Your task to perform on an android device: Add "lg ultragear" to the cart on bestbuy.com, then select checkout. Image 0: 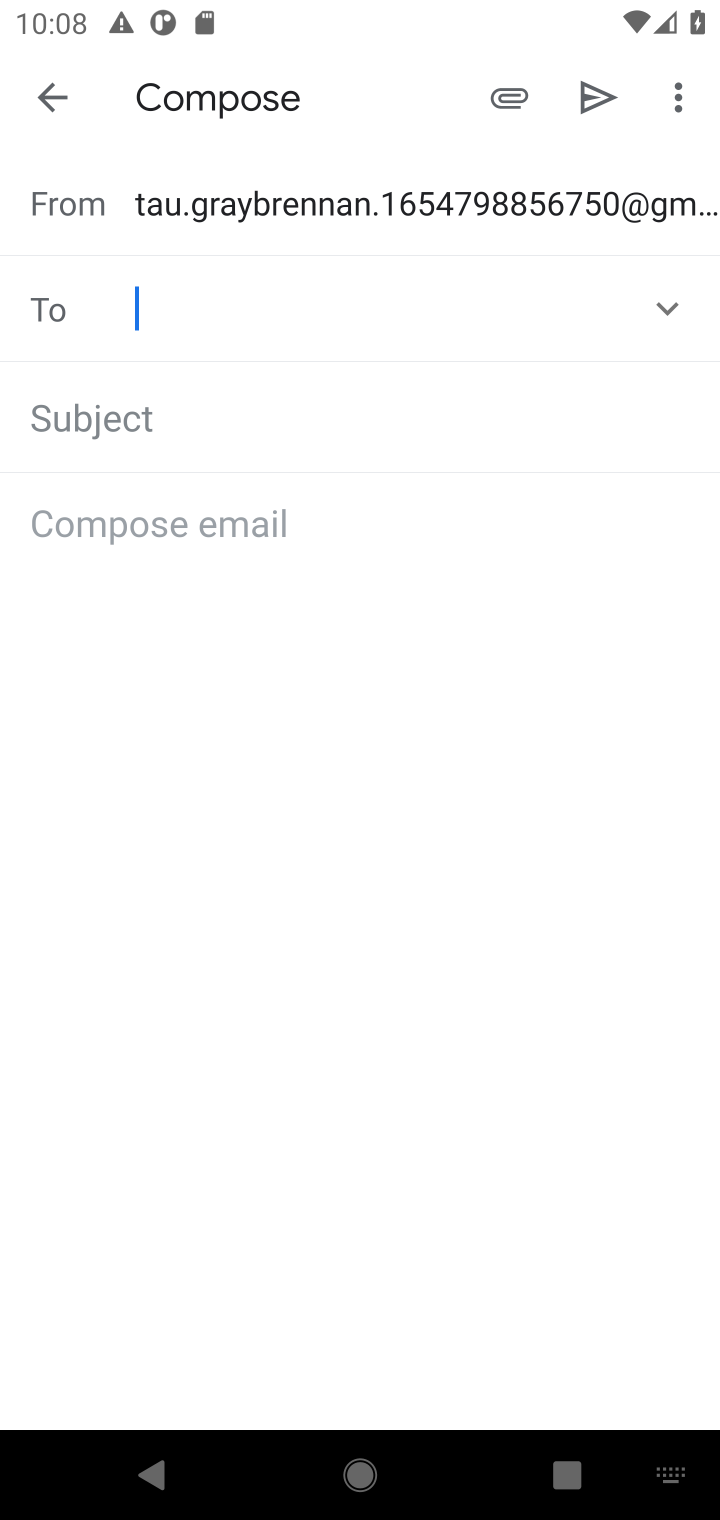
Step 0: press home button
Your task to perform on an android device: Add "lg ultragear" to the cart on bestbuy.com, then select checkout. Image 1: 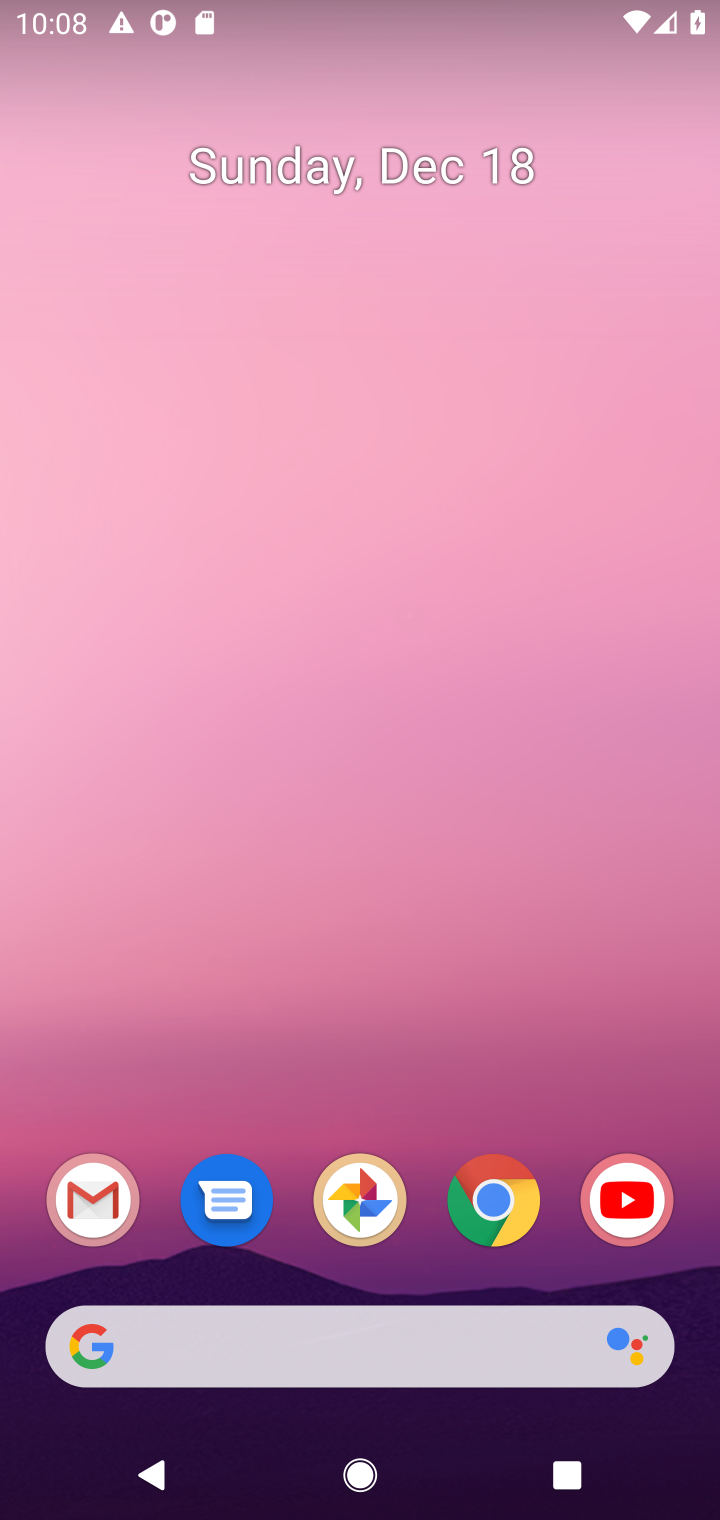
Step 1: click (498, 1205)
Your task to perform on an android device: Add "lg ultragear" to the cart on bestbuy.com, then select checkout. Image 2: 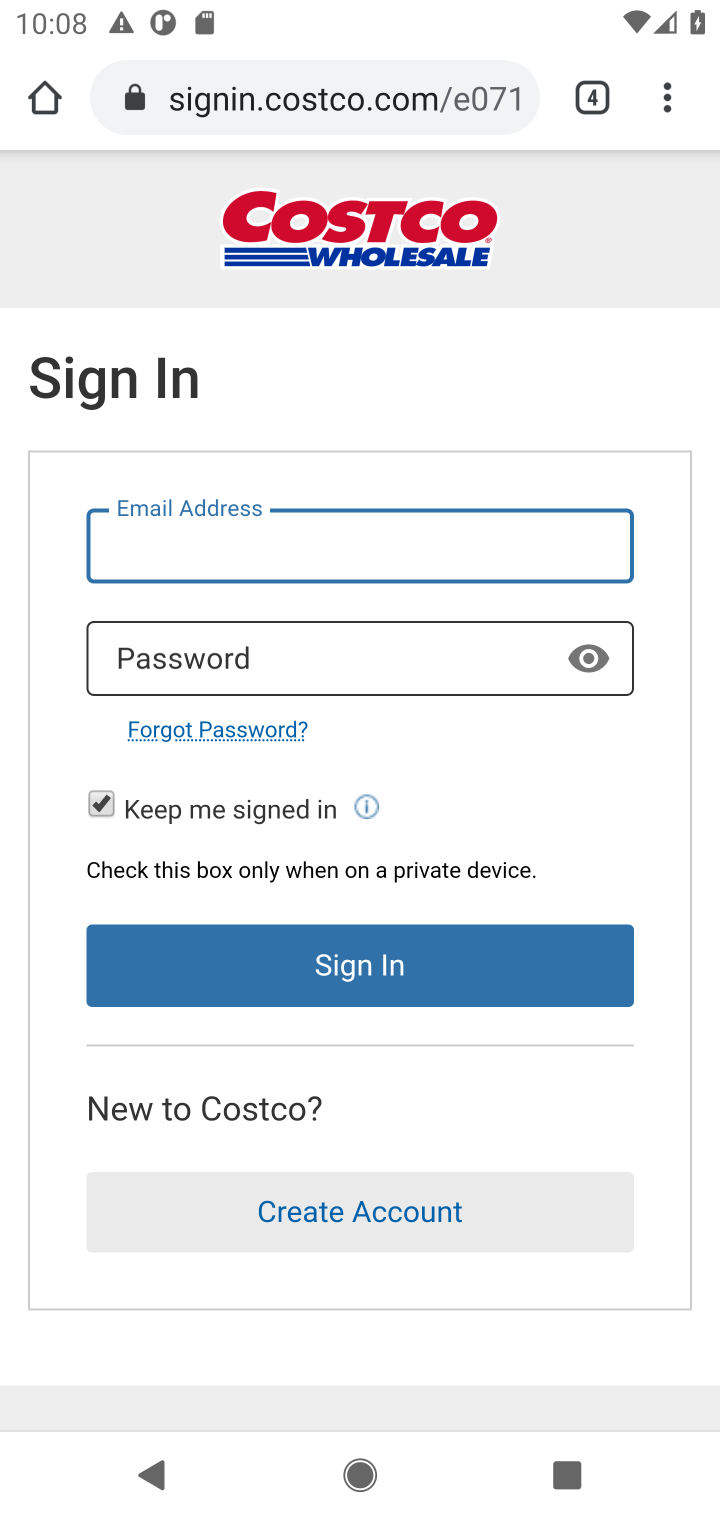
Step 2: click (298, 105)
Your task to perform on an android device: Add "lg ultragear" to the cart on bestbuy.com, then select checkout. Image 3: 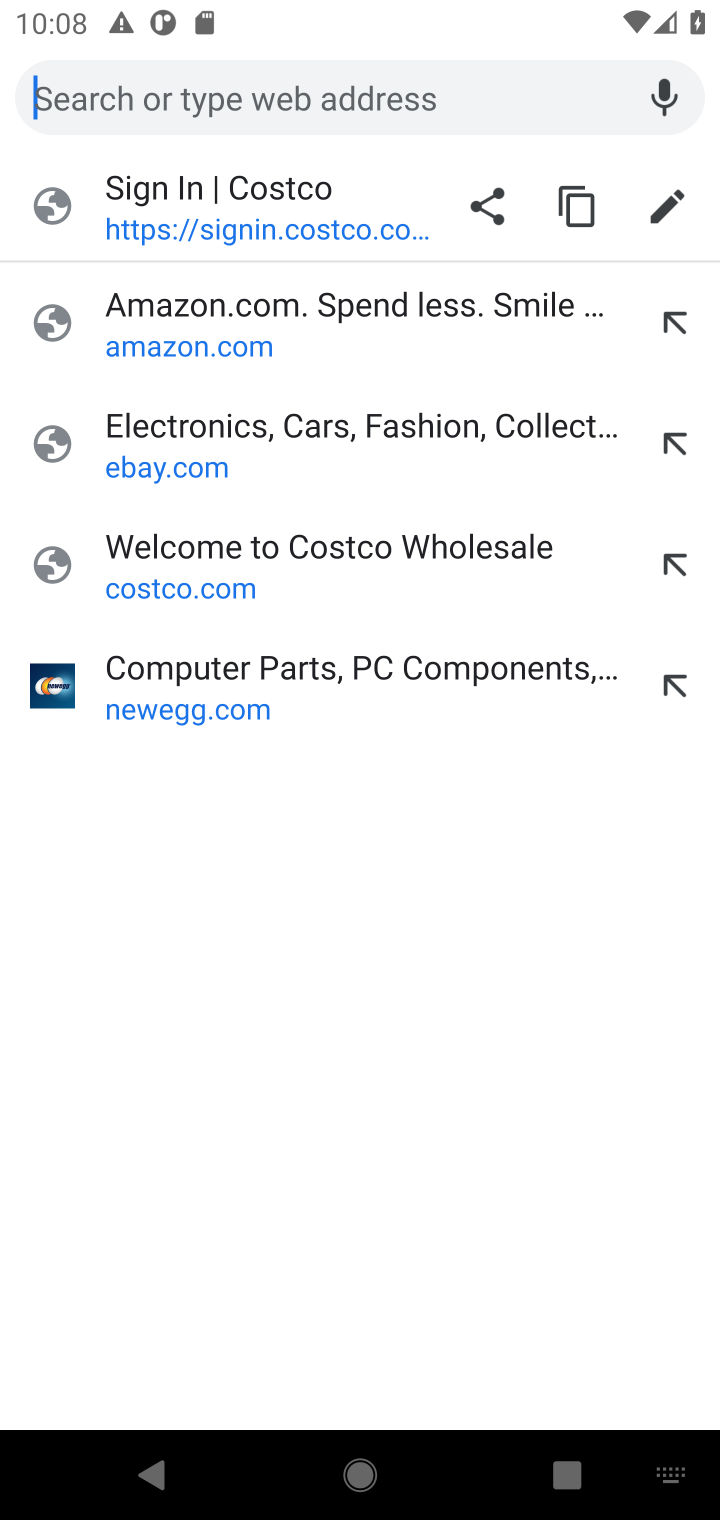
Step 3: type "bestbuy.com"
Your task to perform on an android device: Add "lg ultragear" to the cart on bestbuy.com, then select checkout. Image 4: 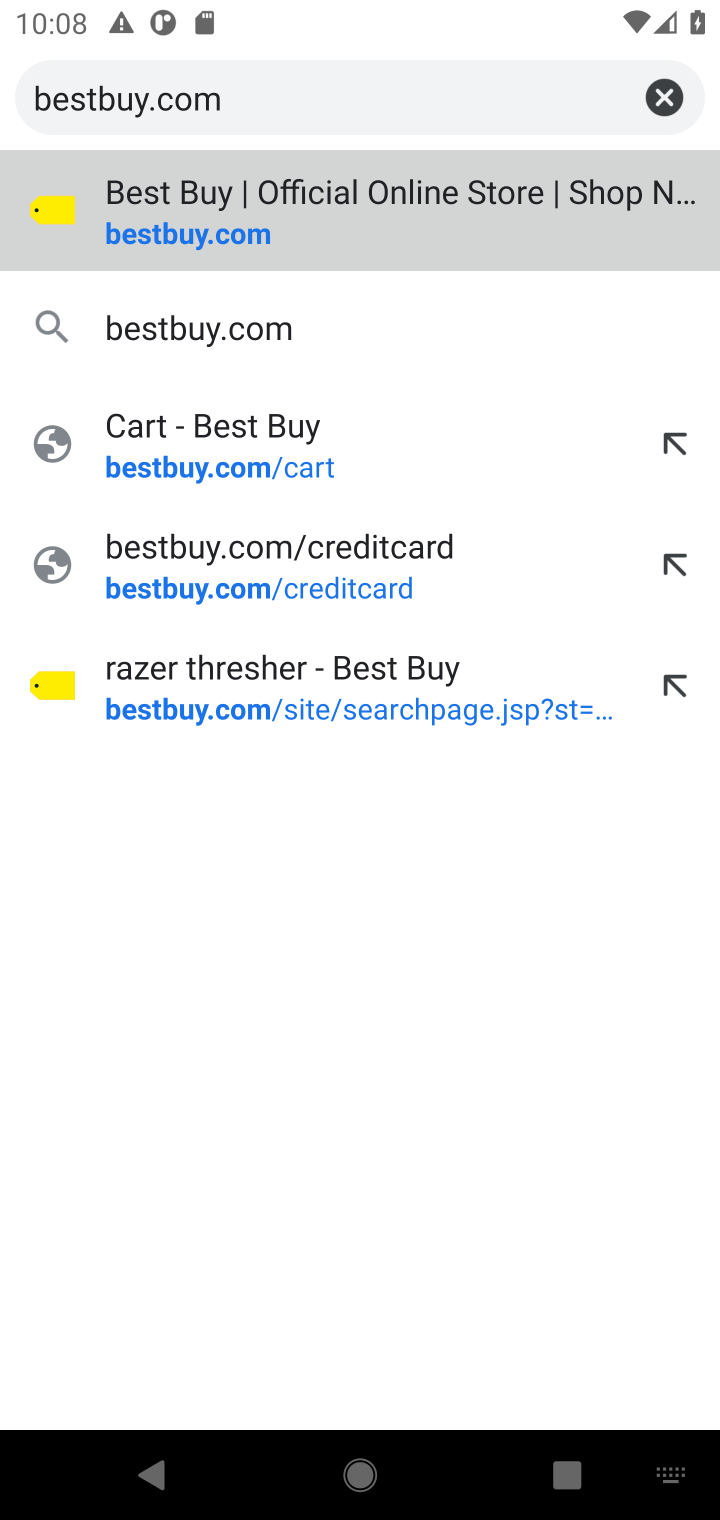
Step 4: click (169, 242)
Your task to perform on an android device: Add "lg ultragear" to the cart on bestbuy.com, then select checkout. Image 5: 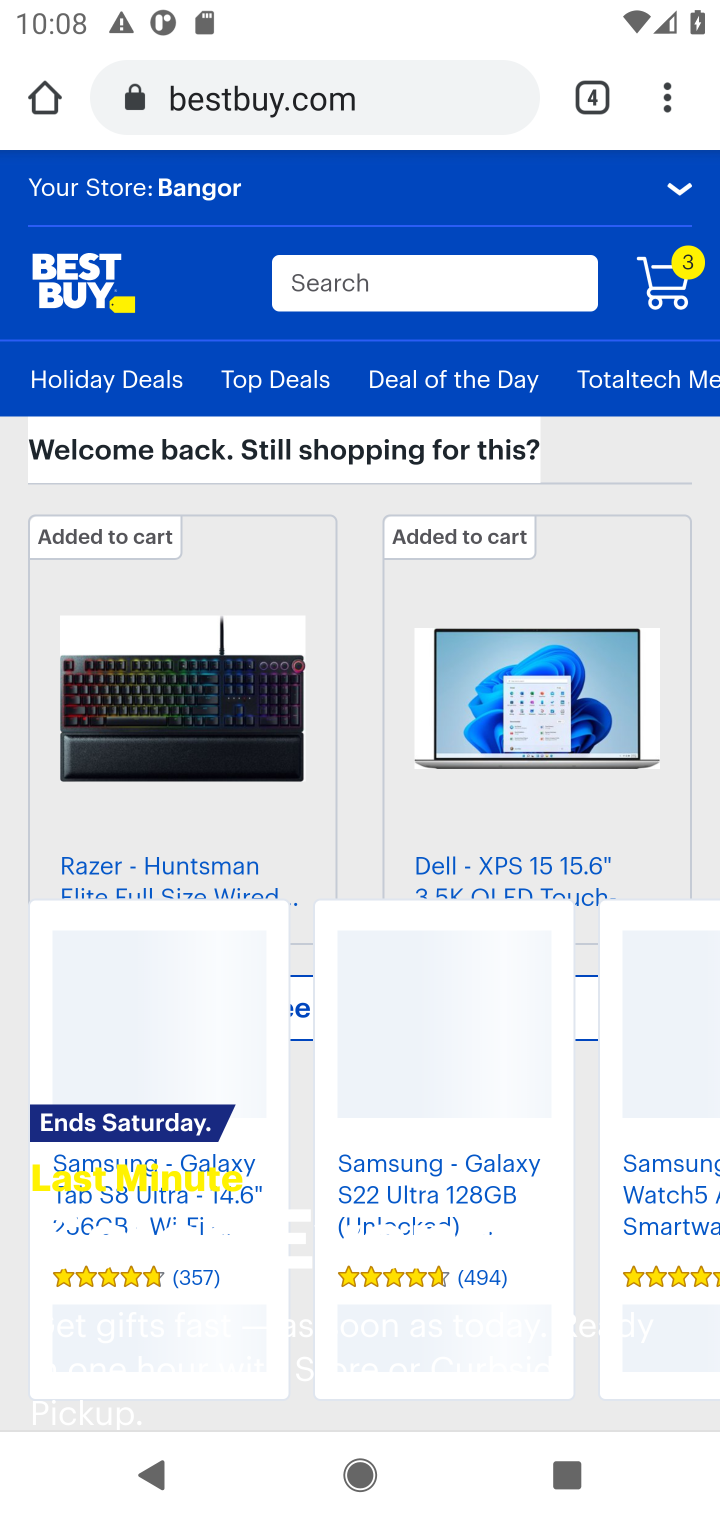
Step 5: click (317, 282)
Your task to perform on an android device: Add "lg ultragear" to the cart on bestbuy.com, then select checkout. Image 6: 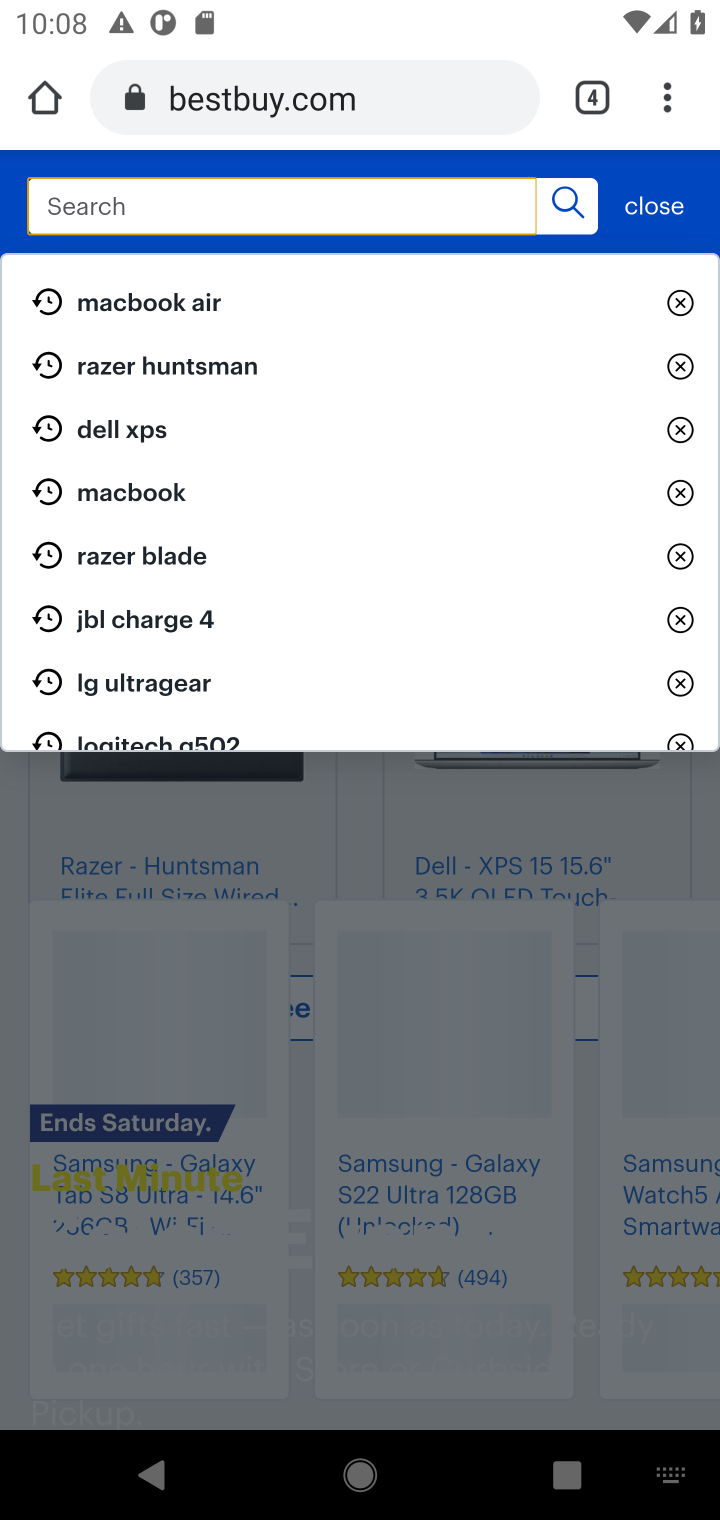
Step 6: type "lg ultragear"
Your task to perform on an android device: Add "lg ultragear" to the cart on bestbuy.com, then select checkout. Image 7: 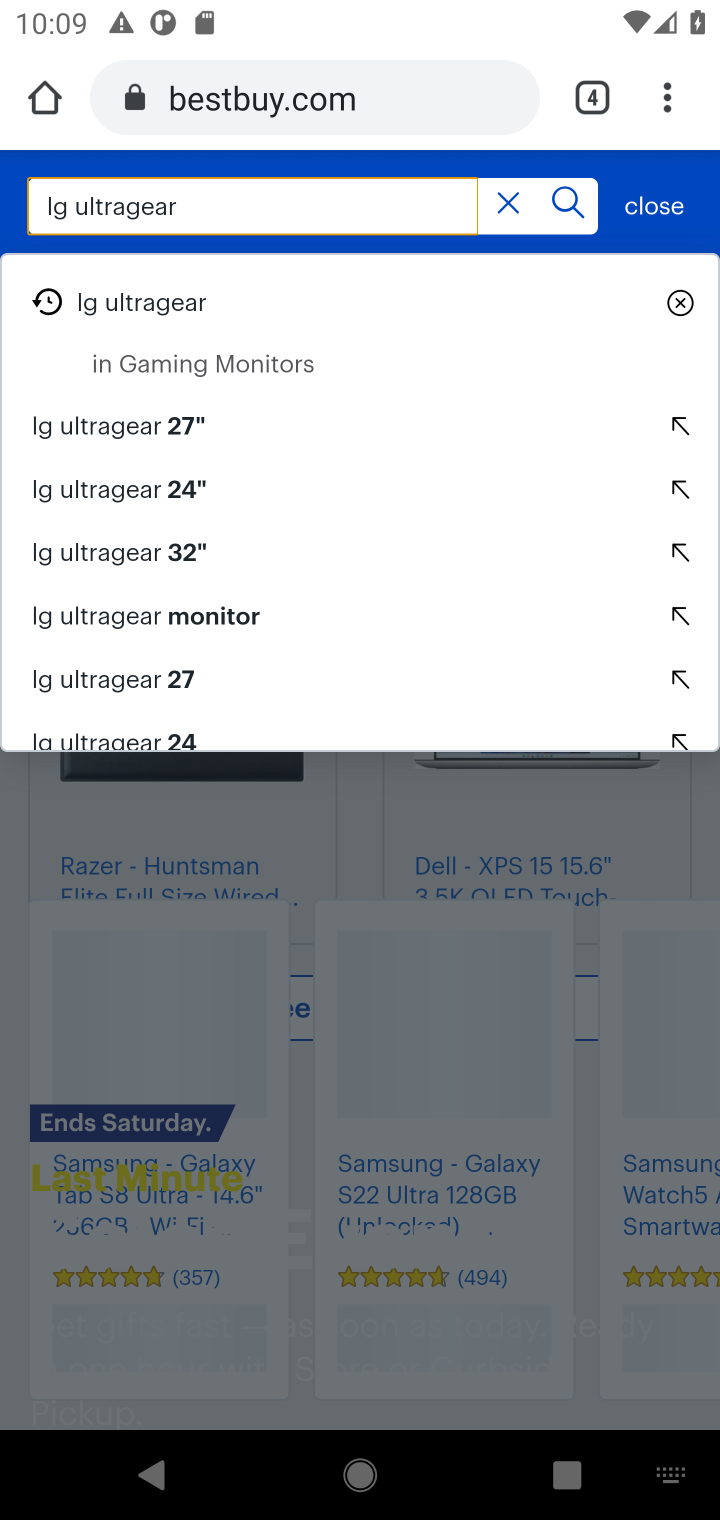
Step 7: click (107, 313)
Your task to perform on an android device: Add "lg ultragear" to the cart on bestbuy.com, then select checkout. Image 8: 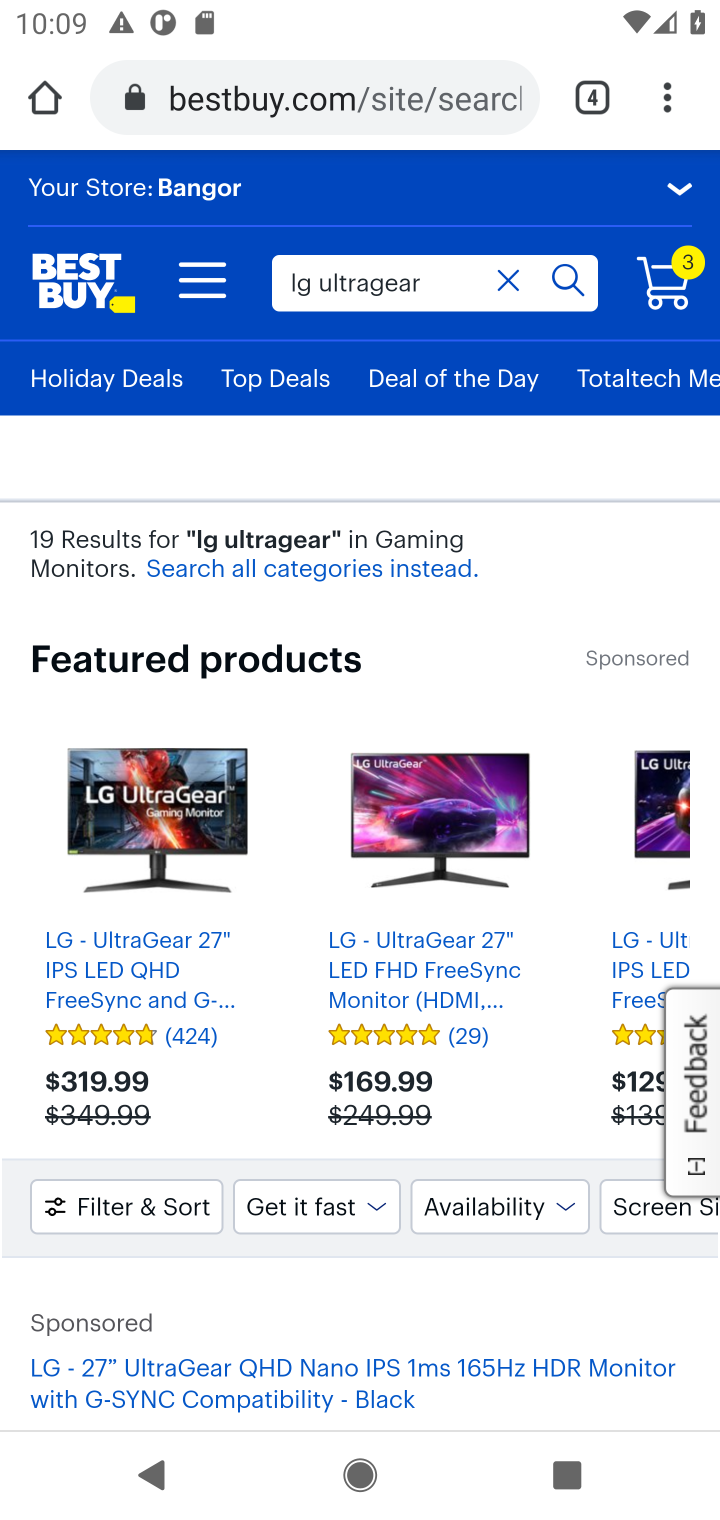
Step 8: drag from (224, 1025) to (230, 525)
Your task to perform on an android device: Add "lg ultragear" to the cart on bestbuy.com, then select checkout. Image 9: 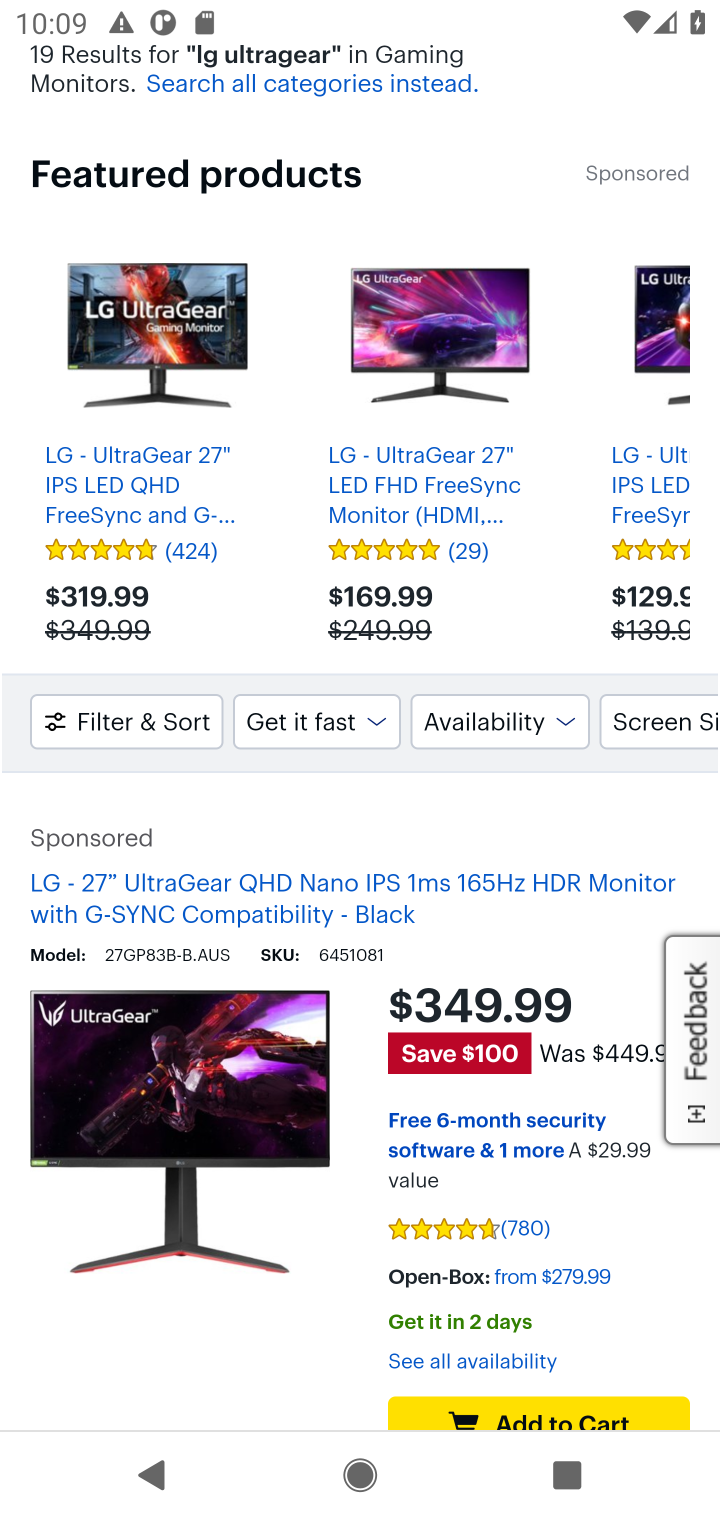
Step 9: drag from (267, 1180) to (288, 861)
Your task to perform on an android device: Add "lg ultragear" to the cart on bestbuy.com, then select checkout. Image 10: 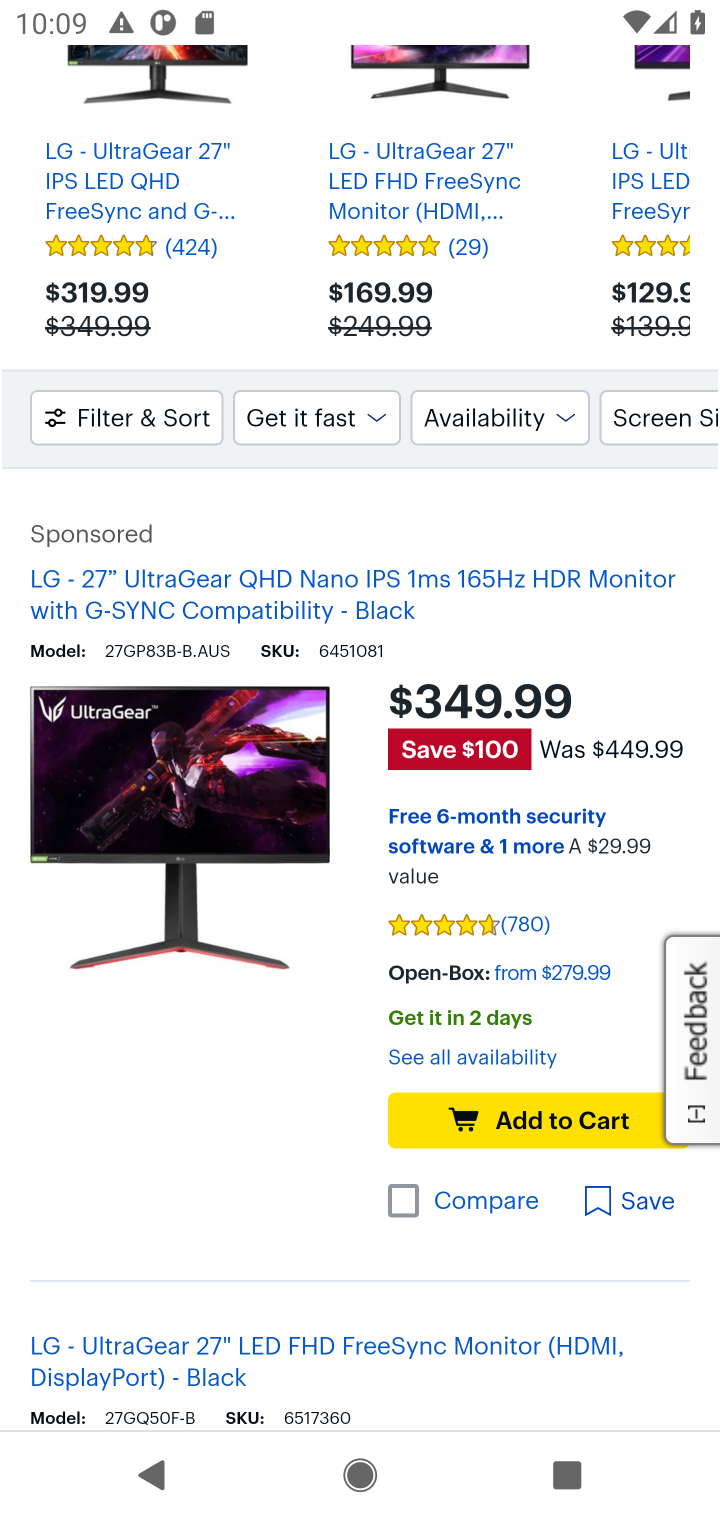
Step 10: click (490, 1118)
Your task to perform on an android device: Add "lg ultragear" to the cart on bestbuy.com, then select checkout. Image 11: 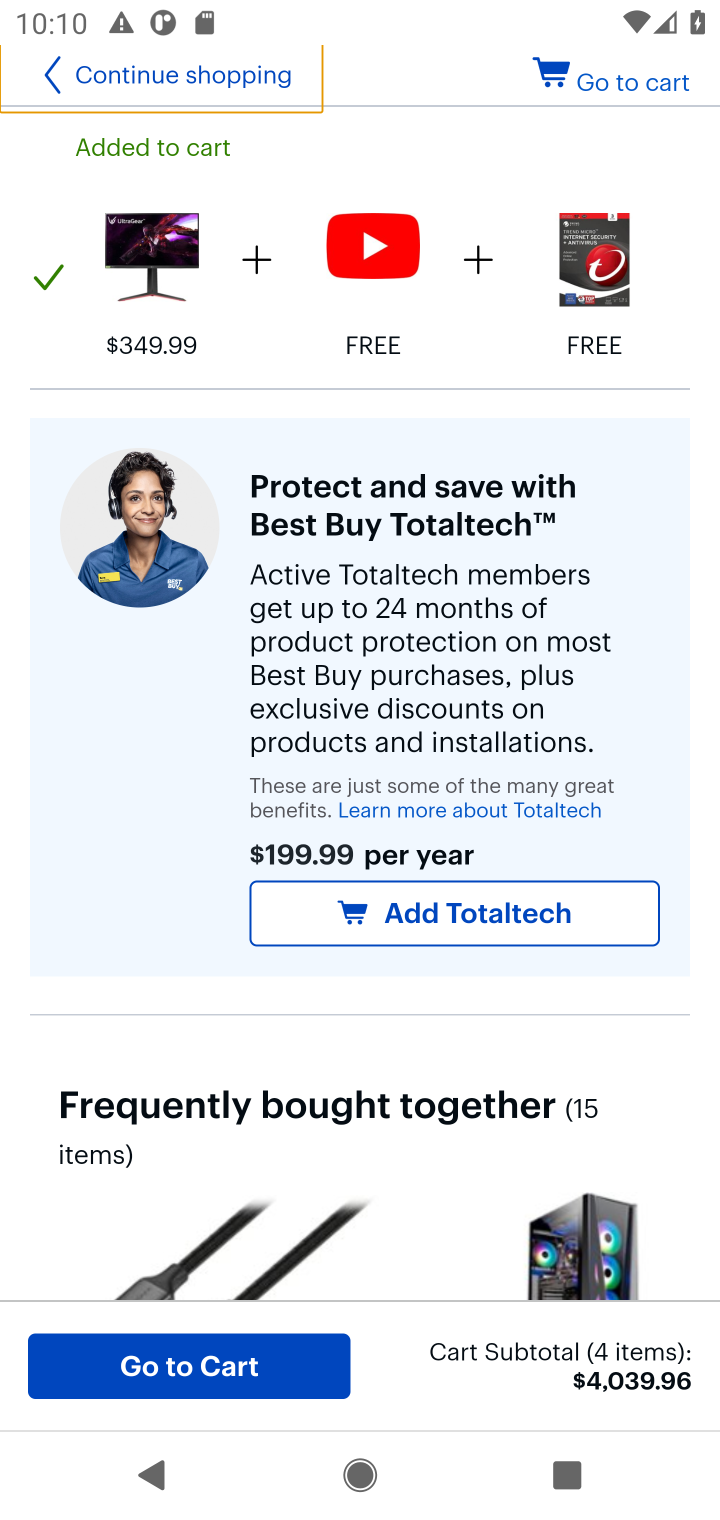
Step 11: click (623, 82)
Your task to perform on an android device: Add "lg ultragear" to the cart on bestbuy.com, then select checkout. Image 12: 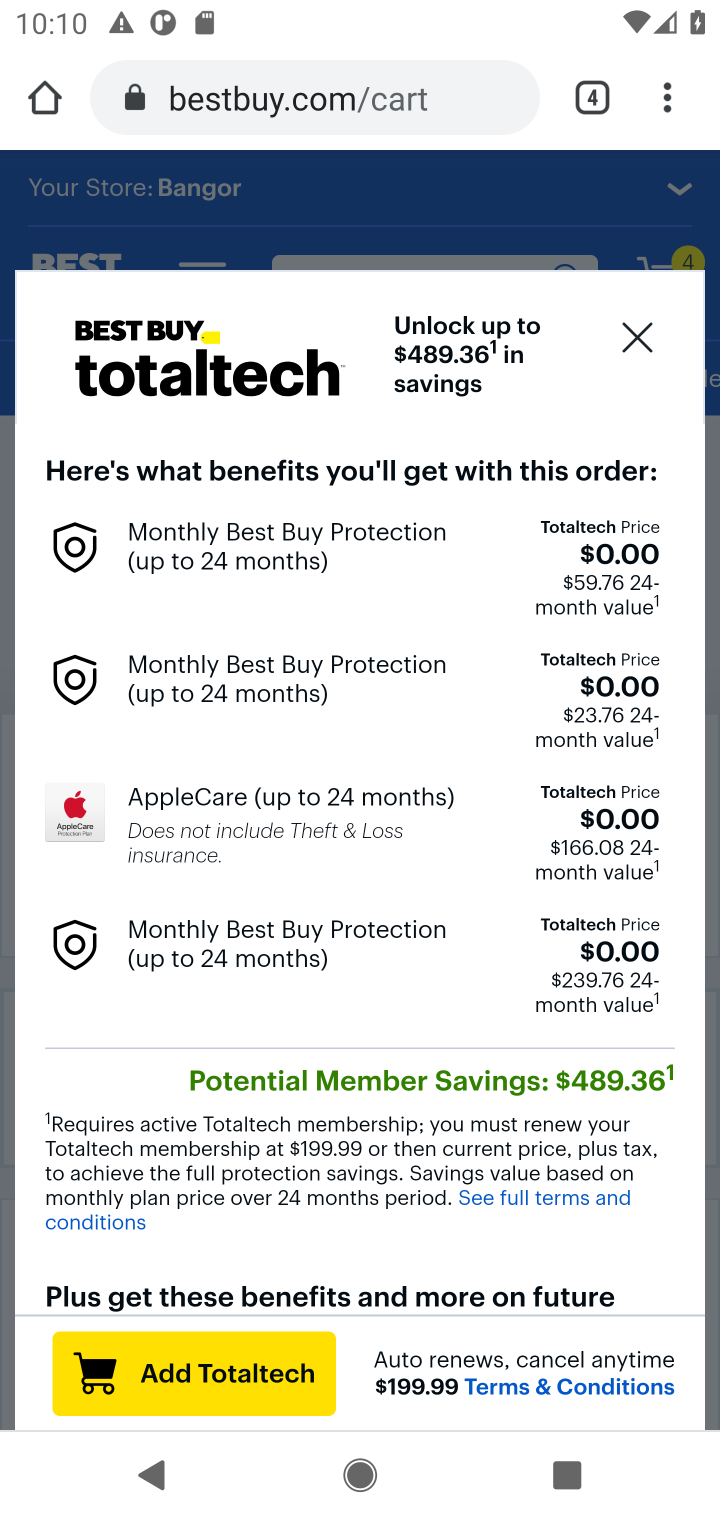
Step 12: click (634, 351)
Your task to perform on an android device: Add "lg ultragear" to the cart on bestbuy.com, then select checkout. Image 13: 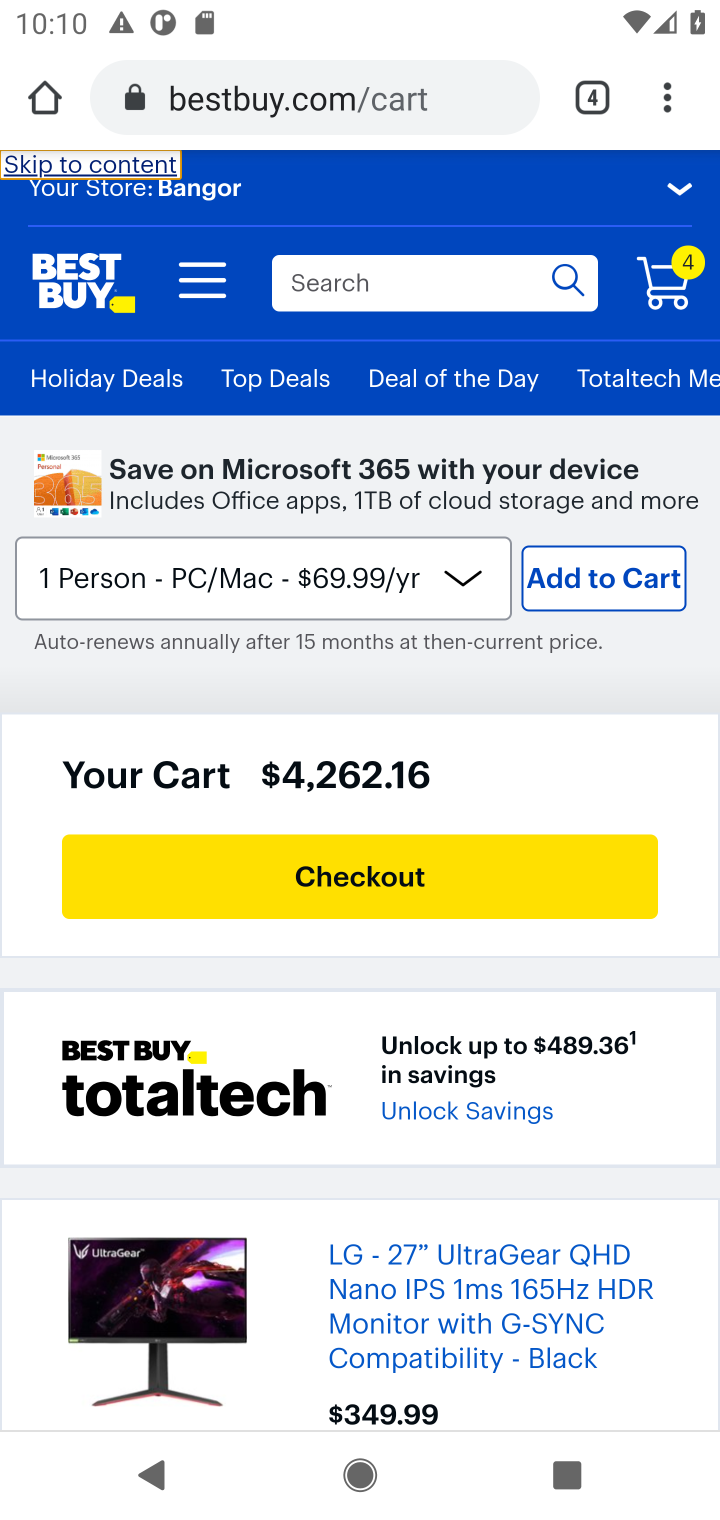
Step 13: click (332, 893)
Your task to perform on an android device: Add "lg ultragear" to the cart on bestbuy.com, then select checkout. Image 14: 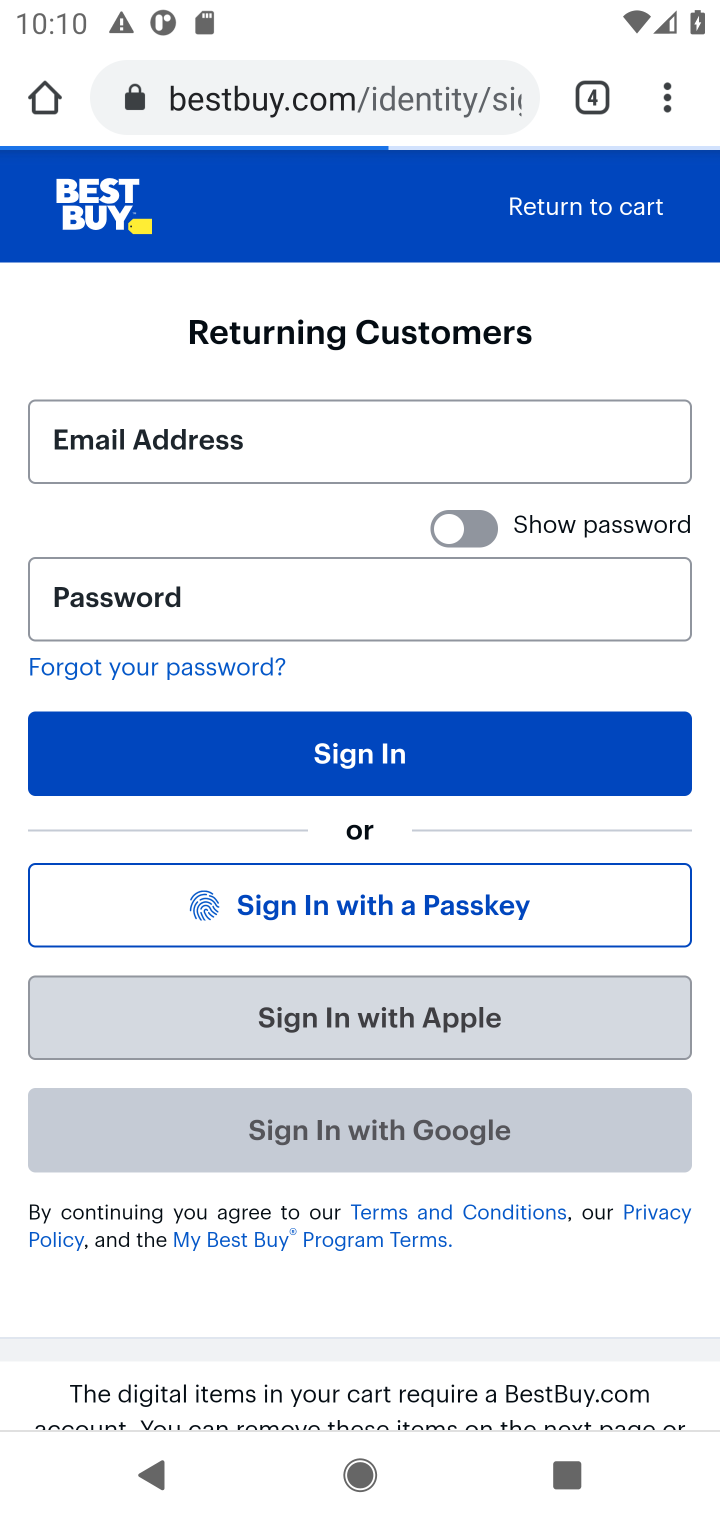
Step 14: task complete